Your task to perform on an android device: turn on notifications settings in the gmail app Image 0: 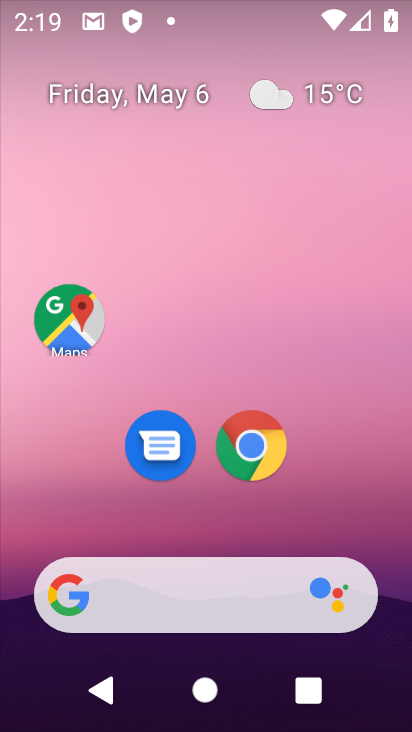
Step 0: drag from (167, 542) to (277, 80)
Your task to perform on an android device: turn on notifications settings in the gmail app Image 1: 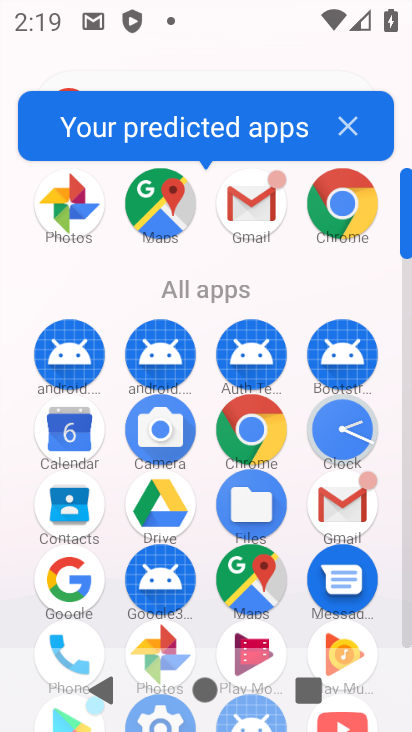
Step 1: click (357, 508)
Your task to perform on an android device: turn on notifications settings in the gmail app Image 2: 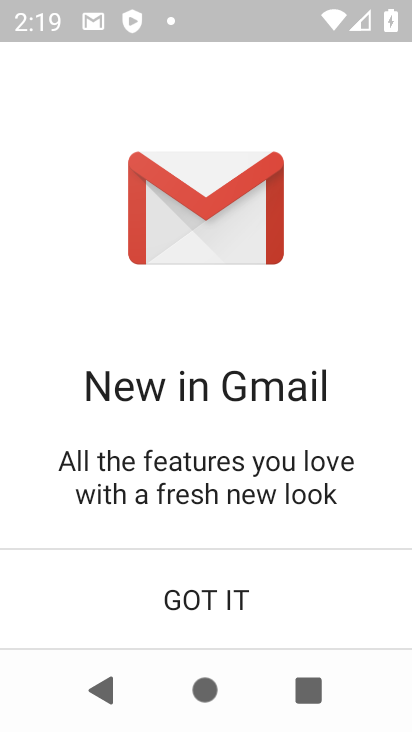
Step 2: click (233, 602)
Your task to perform on an android device: turn on notifications settings in the gmail app Image 3: 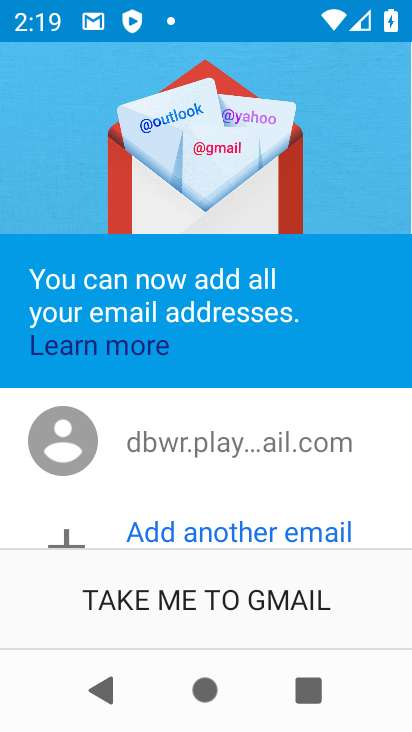
Step 3: click (233, 602)
Your task to perform on an android device: turn on notifications settings in the gmail app Image 4: 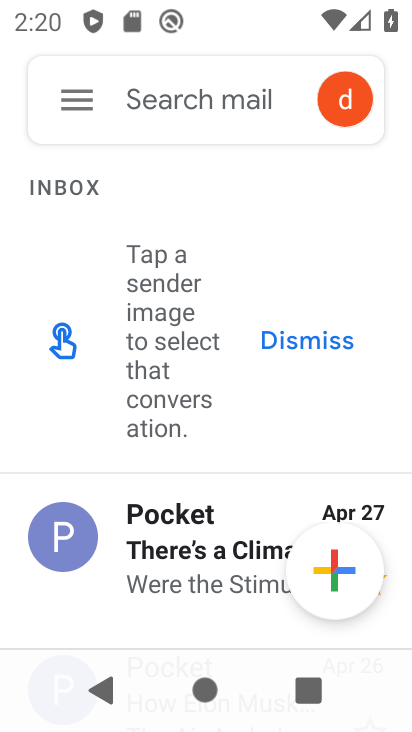
Step 4: click (78, 109)
Your task to perform on an android device: turn on notifications settings in the gmail app Image 5: 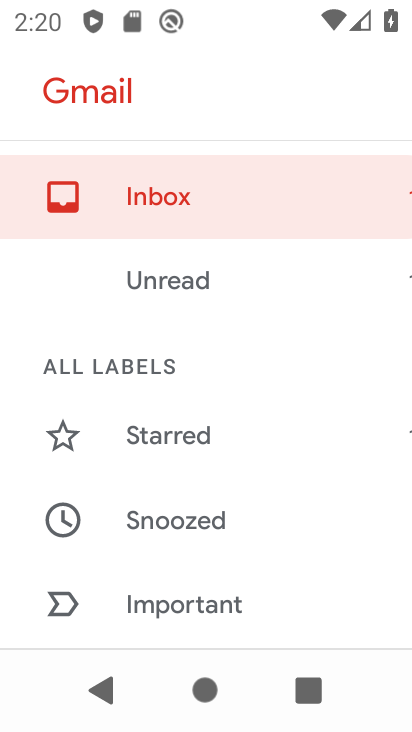
Step 5: drag from (139, 523) to (265, 116)
Your task to perform on an android device: turn on notifications settings in the gmail app Image 6: 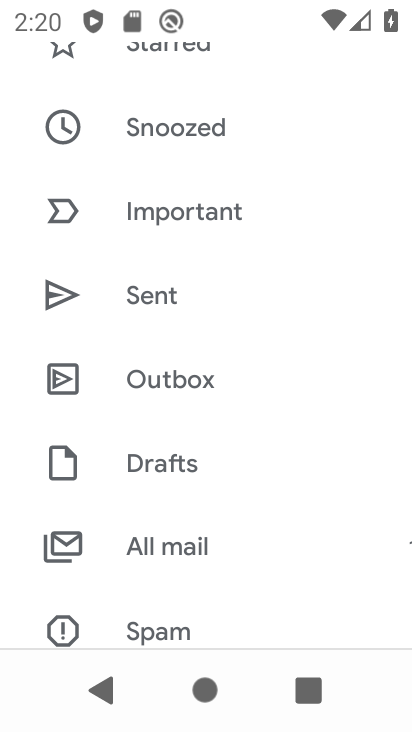
Step 6: drag from (166, 541) to (248, 222)
Your task to perform on an android device: turn on notifications settings in the gmail app Image 7: 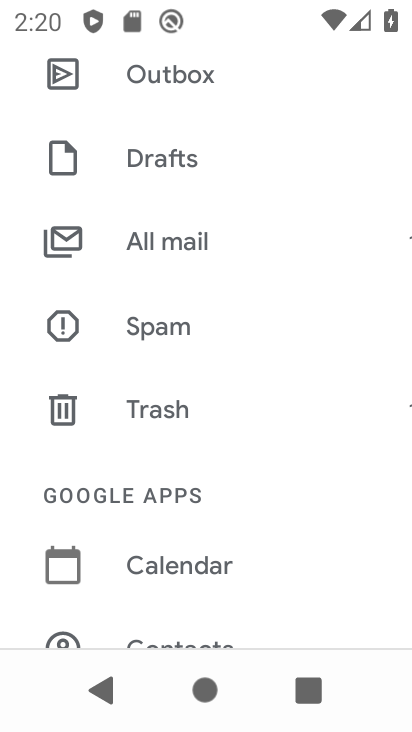
Step 7: drag from (204, 570) to (285, 201)
Your task to perform on an android device: turn on notifications settings in the gmail app Image 8: 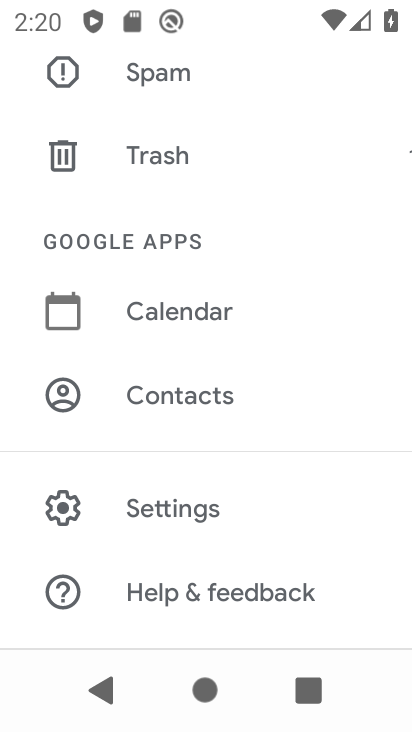
Step 8: click (204, 512)
Your task to perform on an android device: turn on notifications settings in the gmail app Image 9: 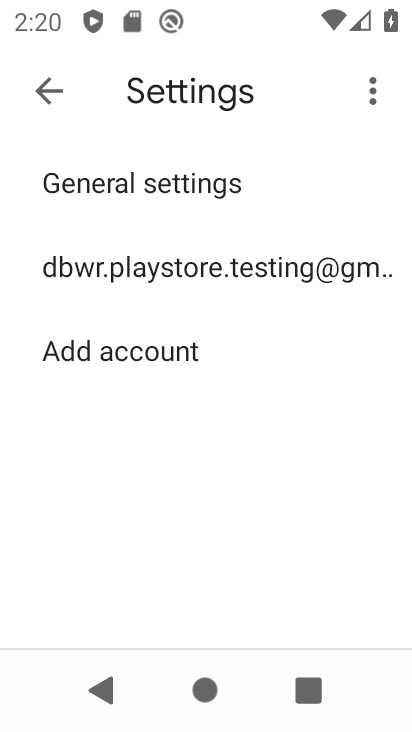
Step 9: click (307, 262)
Your task to perform on an android device: turn on notifications settings in the gmail app Image 10: 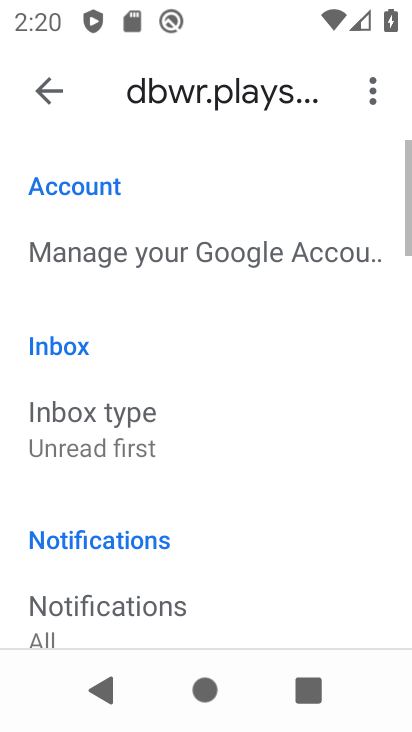
Step 10: drag from (228, 612) to (299, 234)
Your task to perform on an android device: turn on notifications settings in the gmail app Image 11: 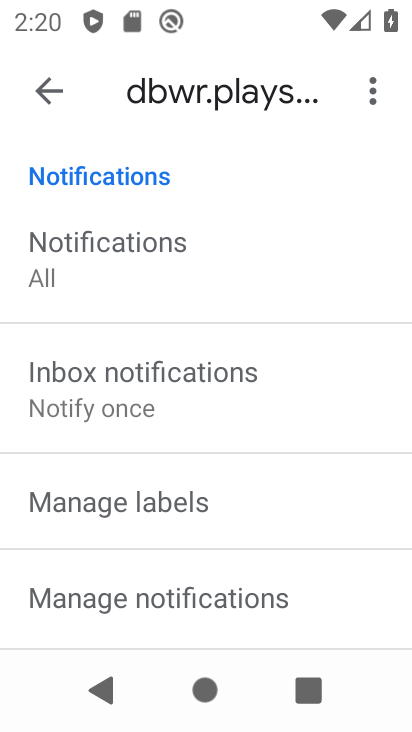
Step 11: drag from (211, 543) to (272, 270)
Your task to perform on an android device: turn on notifications settings in the gmail app Image 12: 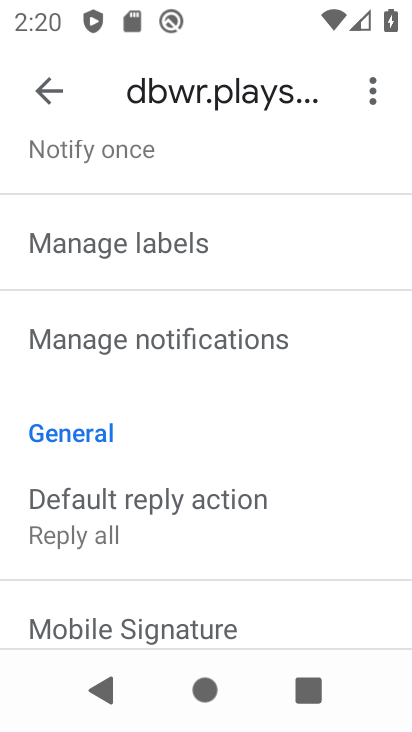
Step 12: click (233, 322)
Your task to perform on an android device: turn on notifications settings in the gmail app Image 13: 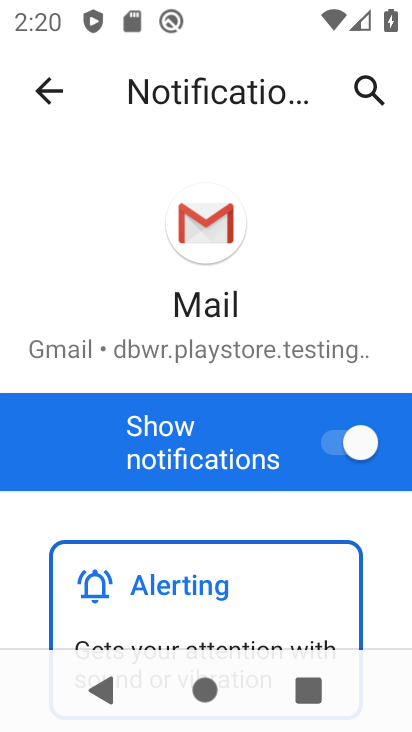
Step 13: task complete